Your task to perform on an android device: Go to Yahoo.com Image 0: 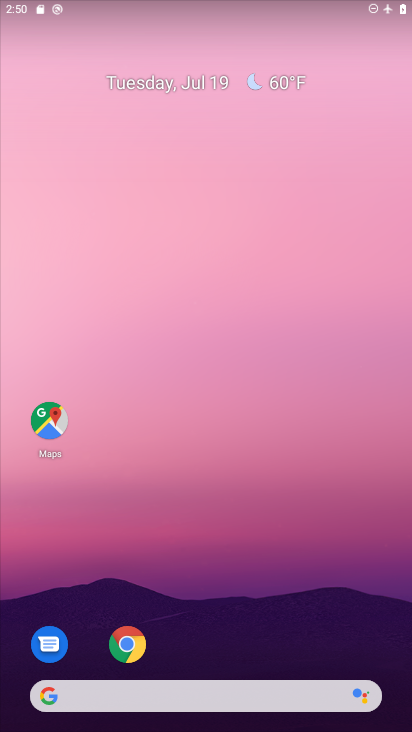
Step 0: drag from (199, 676) to (199, 67)
Your task to perform on an android device: Go to Yahoo.com Image 1: 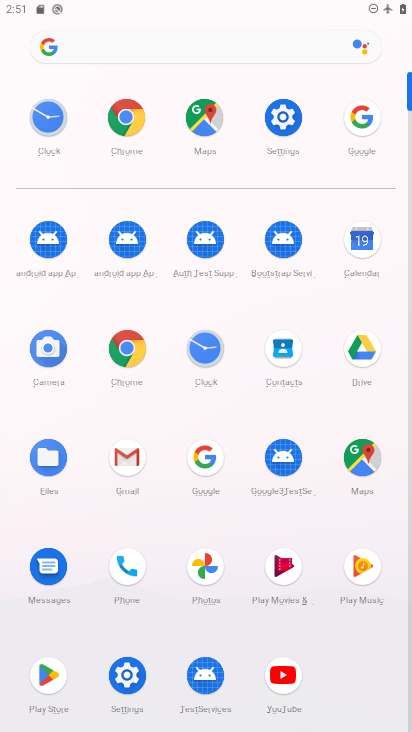
Step 1: click (119, 341)
Your task to perform on an android device: Go to Yahoo.com Image 2: 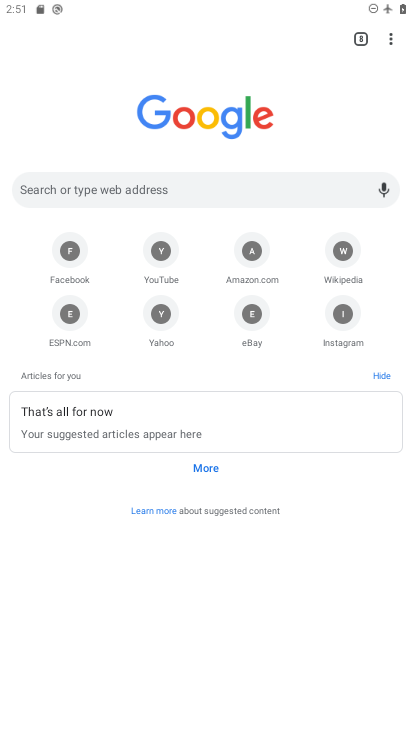
Step 2: click (152, 329)
Your task to perform on an android device: Go to Yahoo.com Image 3: 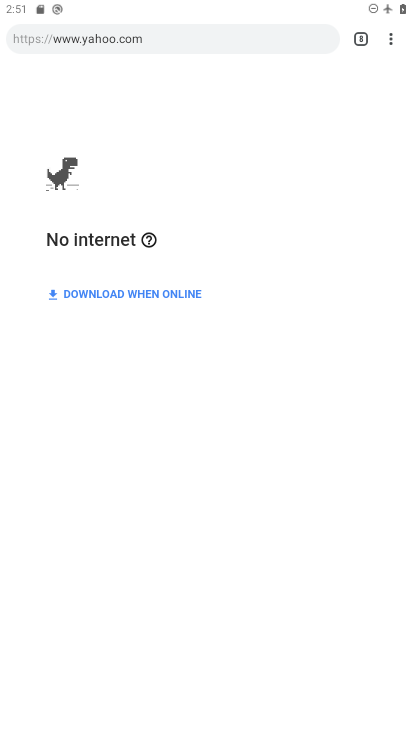
Step 3: task complete